Your task to perform on an android device: Go to notification settings Image 0: 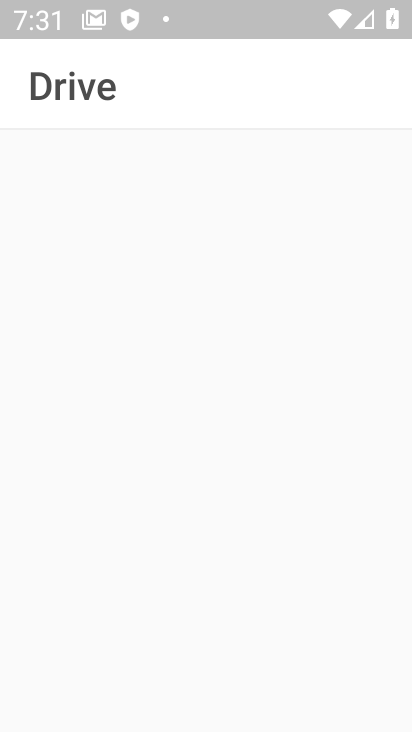
Step 0: press home button
Your task to perform on an android device: Go to notification settings Image 1: 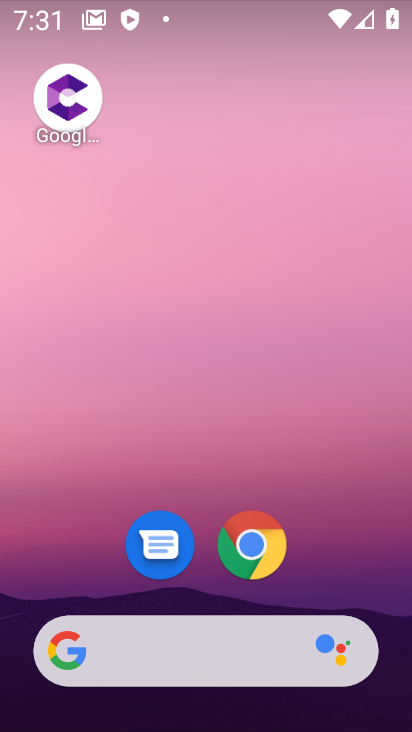
Step 1: drag from (214, 598) to (239, 17)
Your task to perform on an android device: Go to notification settings Image 2: 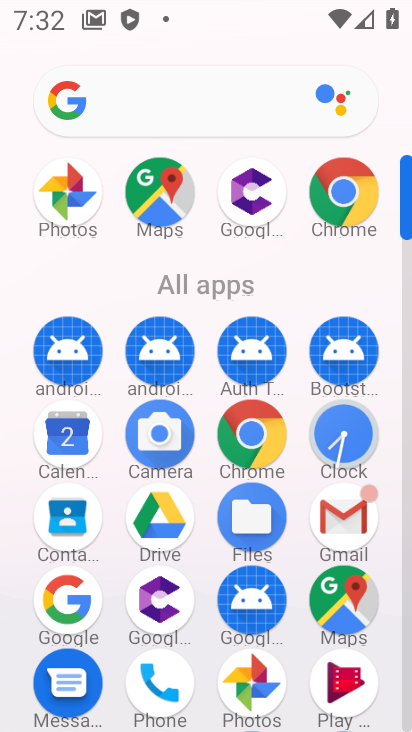
Step 2: drag from (255, 446) to (299, 63)
Your task to perform on an android device: Go to notification settings Image 3: 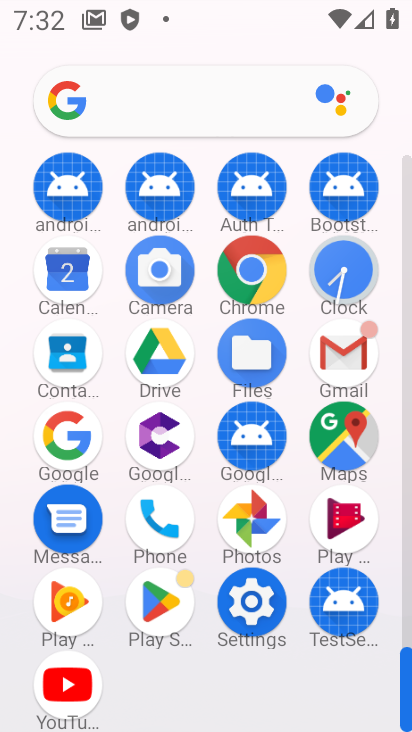
Step 3: click (250, 610)
Your task to perform on an android device: Go to notification settings Image 4: 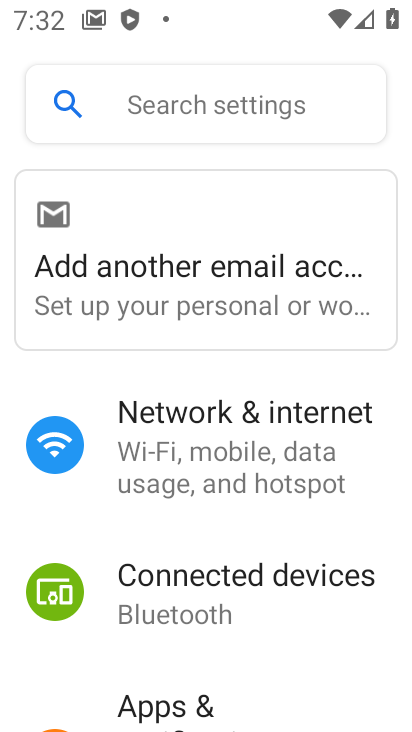
Step 4: drag from (217, 586) to (290, 244)
Your task to perform on an android device: Go to notification settings Image 5: 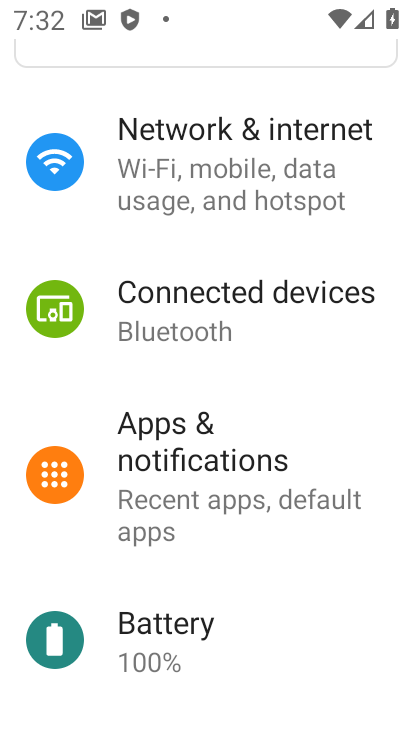
Step 5: click (245, 494)
Your task to perform on an android device: Go to notification settings Image 6: 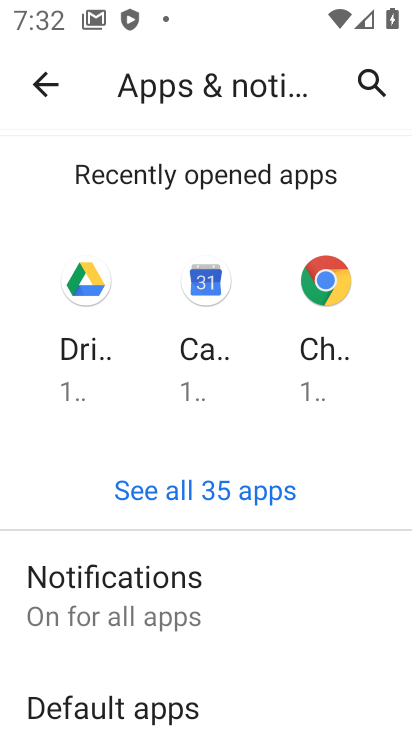
Step 6: click (124, 616)
Your task to perform on an android device: Go to notification settings Image 7: 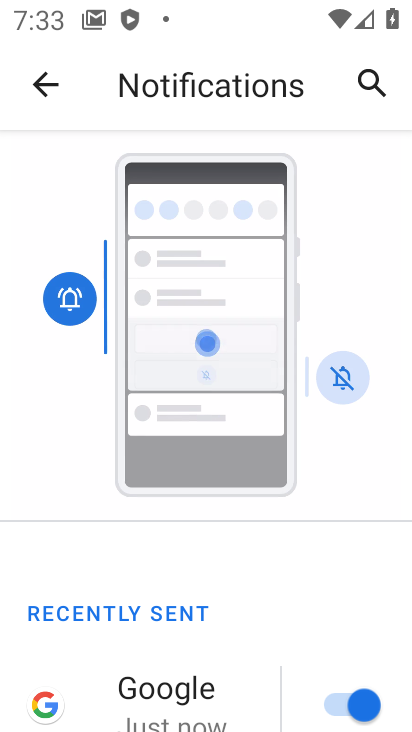
Step 7: task complete